Your task to perform on an android device: open a bookmark in the chrome app Image 0: 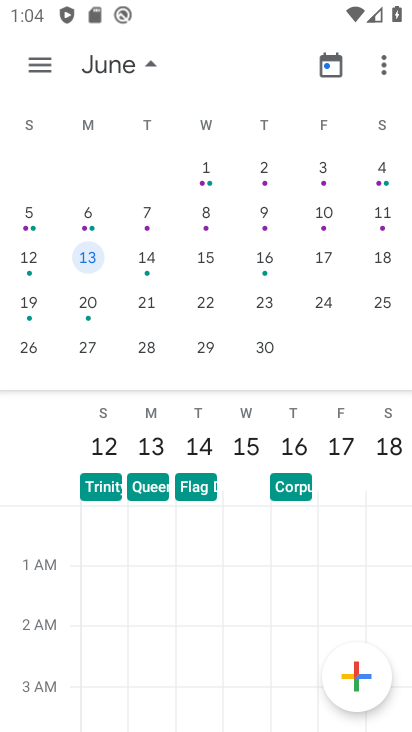
Step 0: press home button
Your task to perform on an android device: open a bookmark in the chrome app Image 1: 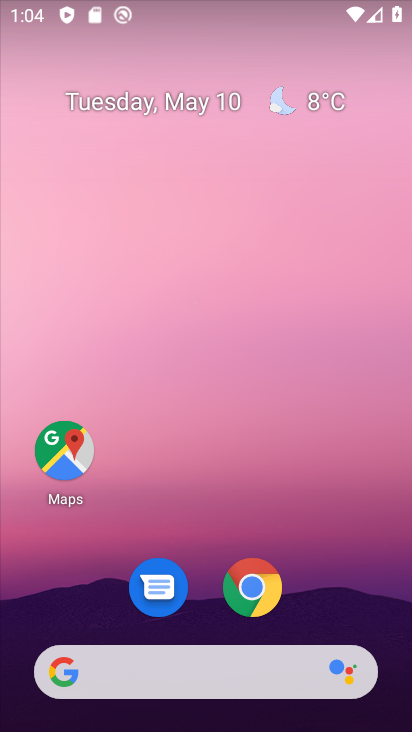
Step 1: click (253, 587)
Your task to perform on an android device: open a bookmark in the chrome app Image 2: 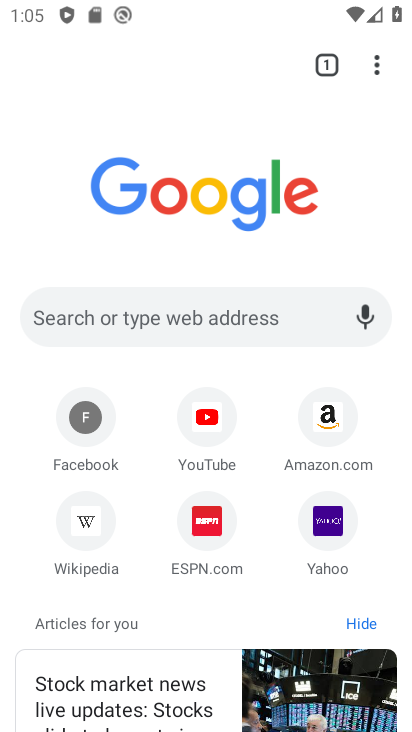
Step 2: click (372, 55)
Your task to perform on an android device: open a bookmark in the chrome app Image 3: 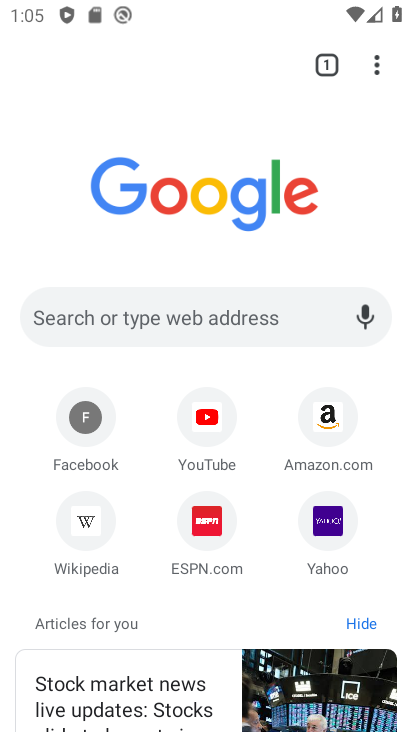
Step 3: click (376, 64)
Your task to perform on an android device: open a bookmark in the chrome app Image 4: 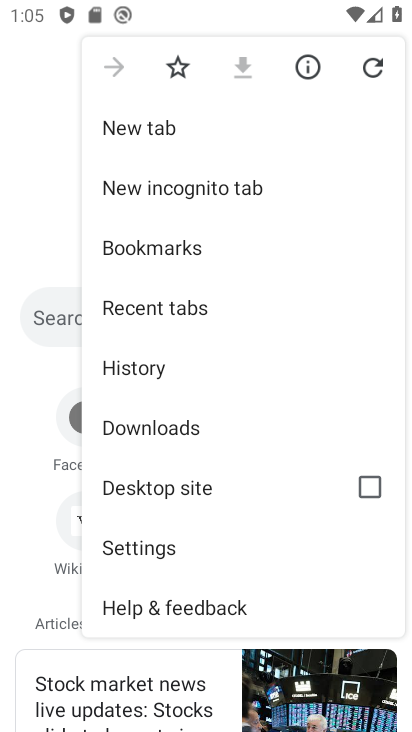
Step 4: click (166, 258)
Your task to perform on an android device: open a bookmark in the chrome app Image 5: 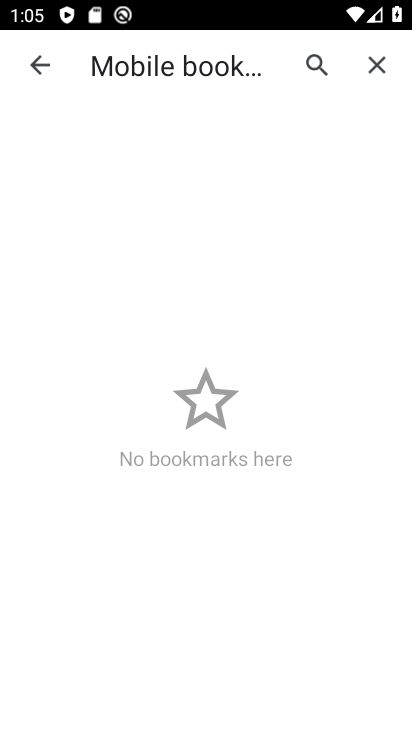
Step 5: task complete